Your task to perform on an android device: Search for Mexican restaurants on Maps Image 0: 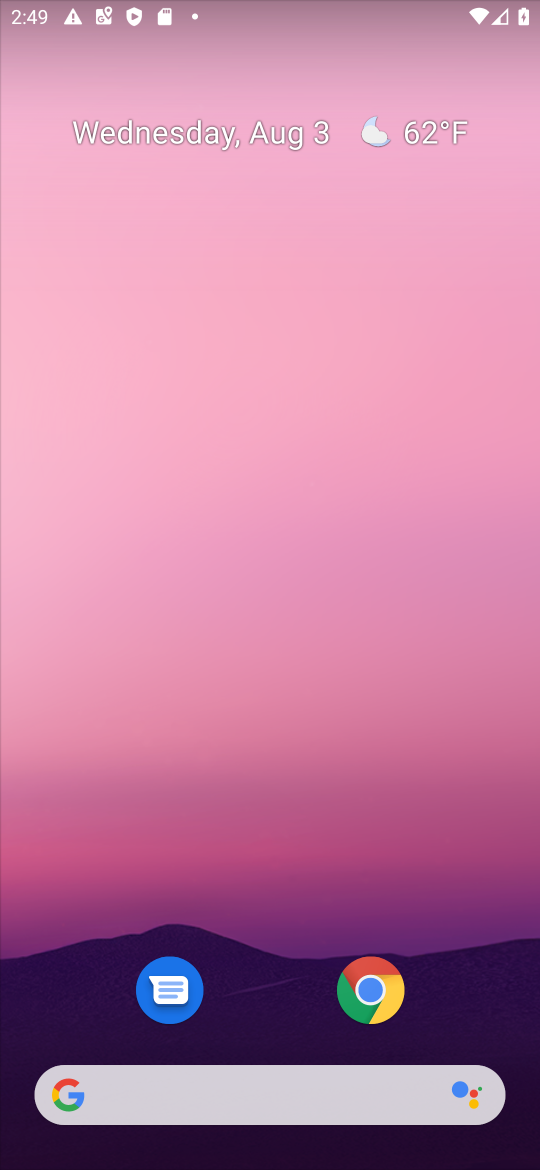
Step 0: press home button
Your task to perform on an android device: Search for Mexican restaurants on Maps Image 1: 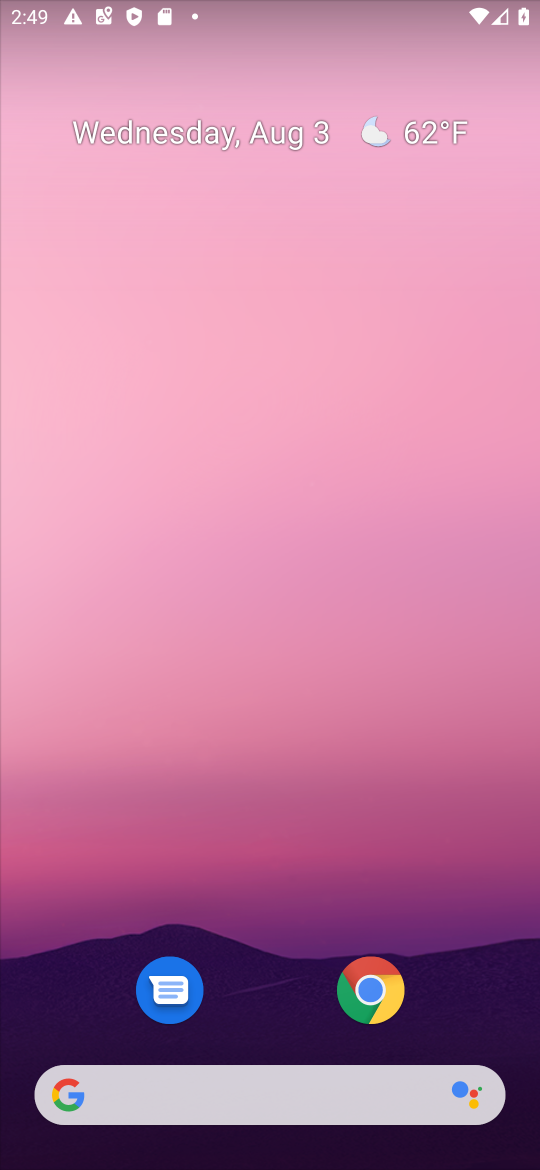
Step 1: drag from (279, 1075) to (279, 326)
Your task to perform on an android device: Search for Mexican restaurants on Maps Image 2: 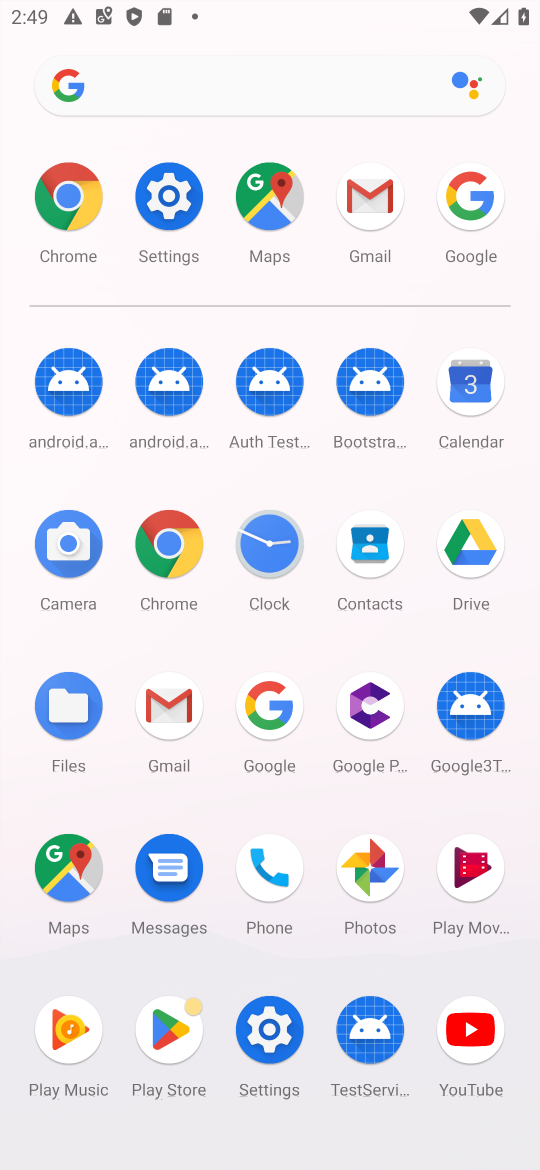
Step 2: click (65, 867)
Your task to perform on an android device: Search for Mexican restaurants on Maps Image 3: 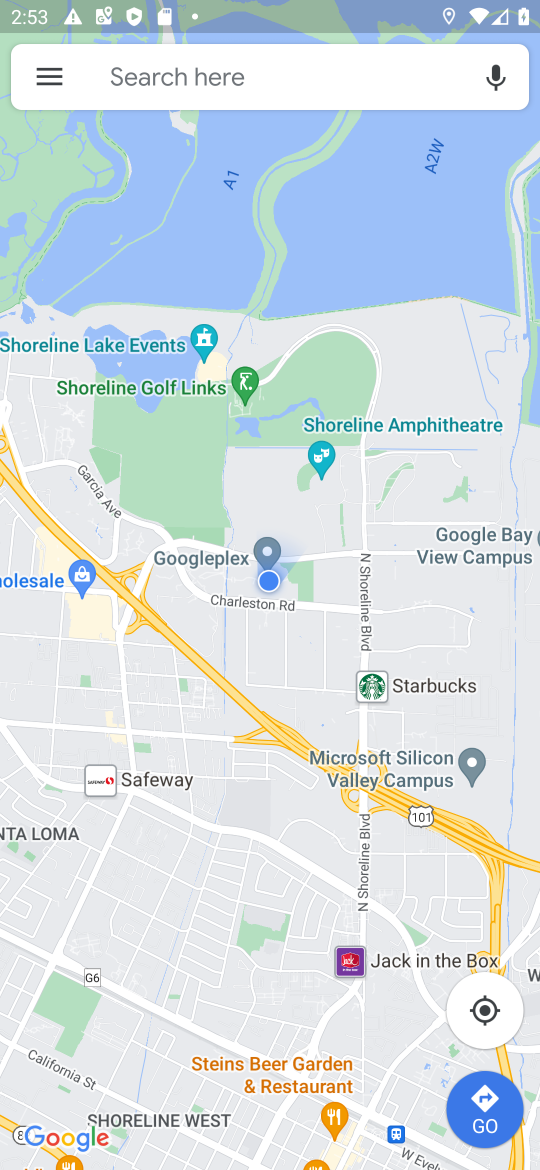
Step 3: click (108, 88)
Your task to perform on an android device: Search for Mexican restaurants on Maps Image 4: 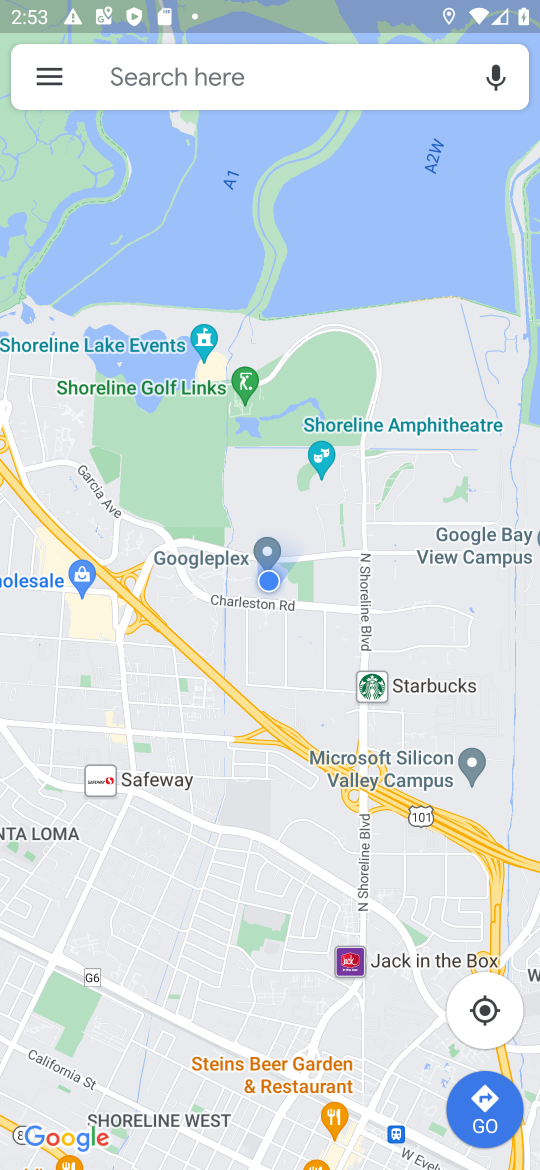
Step 4: click (198, 87)
Your task to perform on an android device: Search for Mexican restaurants on Maps Image 5: 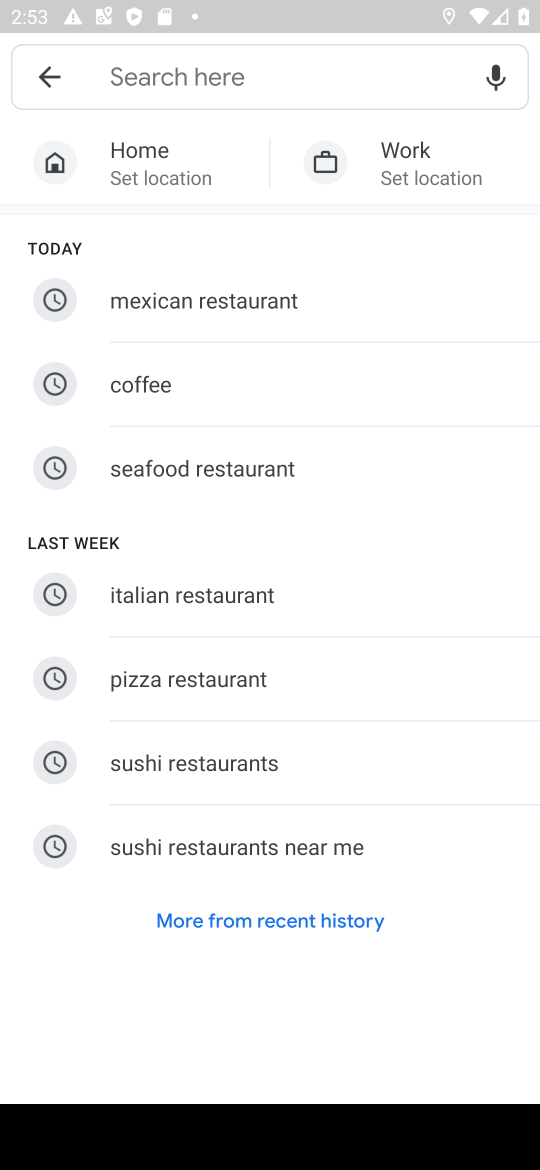
Step 5: click (216, 304)
Your task to perform on an android device: Search for Mexican restaurants on Maps Image 6: 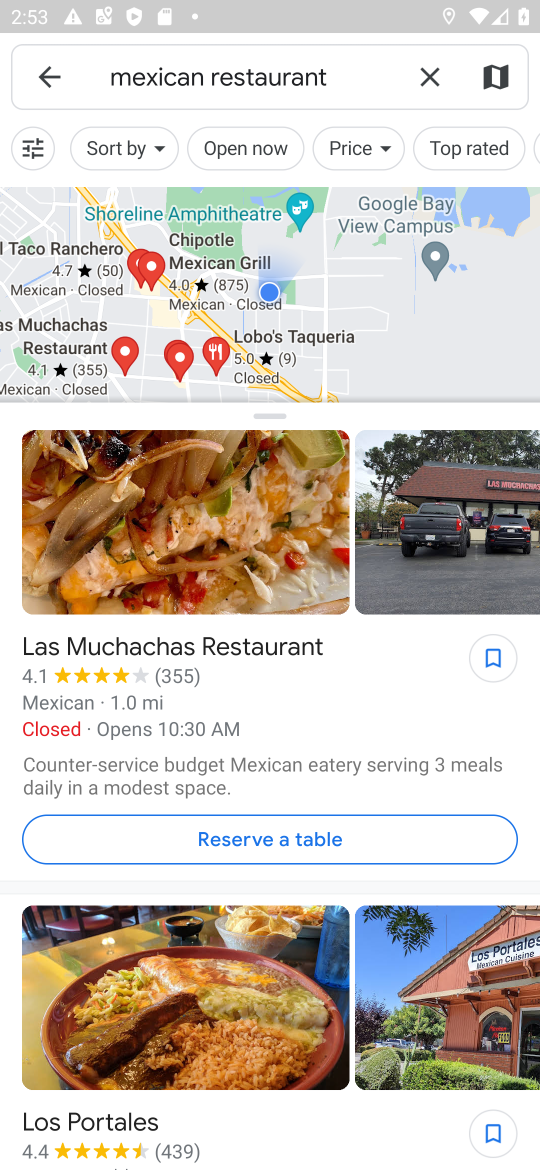
Step 6: task complete